Your task to perform on an android device: turn vacation reply on in the gmail app Image 0: 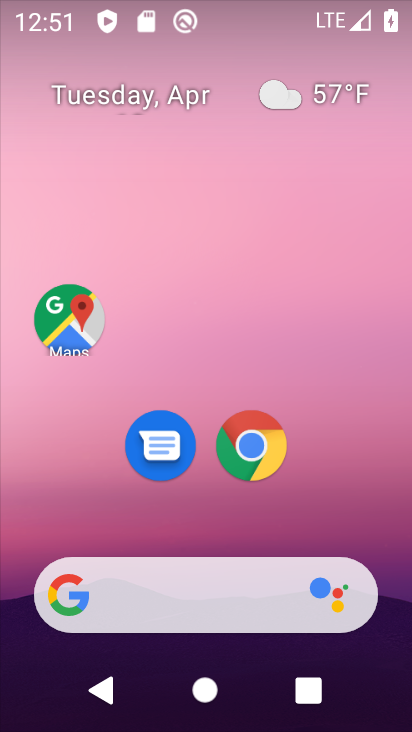
Step 0: drag from (338, 471) to (337, 107)
Your task to perform on an android device: turn vacation reply on in the gmail app Image 1: 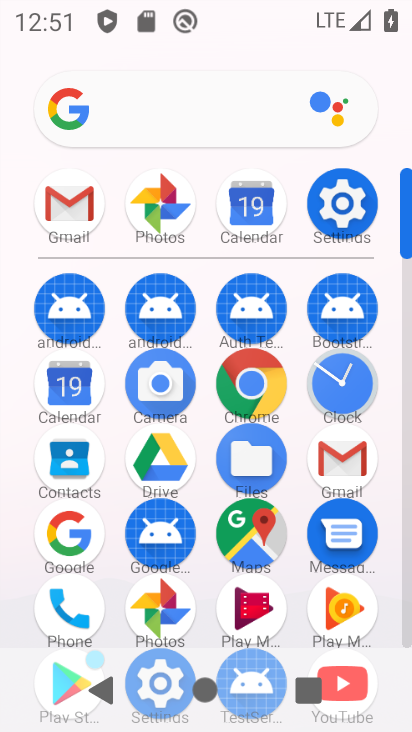
Step 1: click (67, 196)
Your task to perform on an android device: turn vacation reply on in the gmail app Image 2: 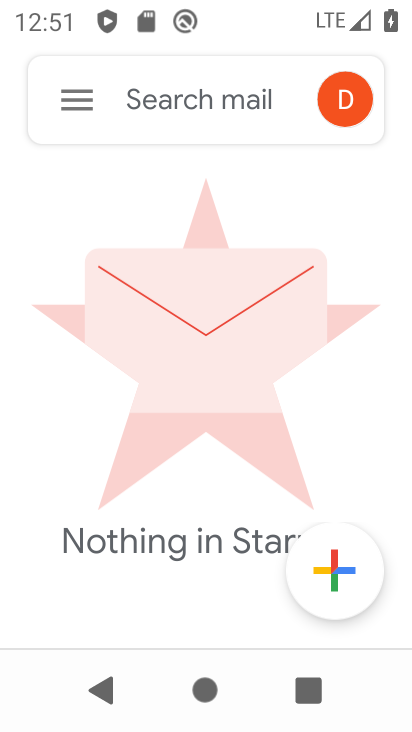
Step 2: click (74, 102)
Your task to perform on an android device: turn vacation reply on in the gmail app Image 3: 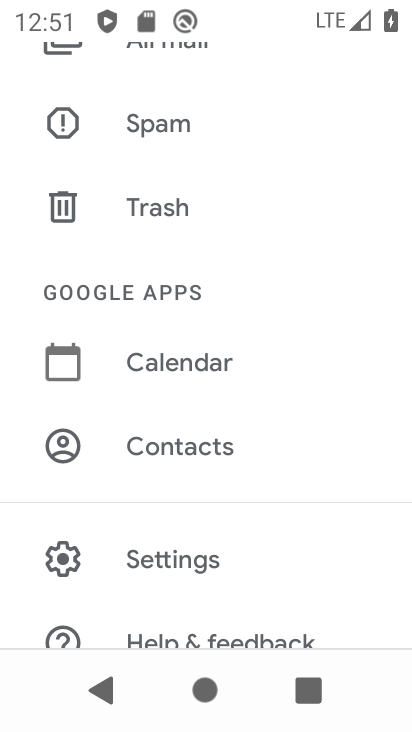
Step 3: click (161, 546)
Your task to perform on an android device: turn vacation reply on in the gmail app Image 4: 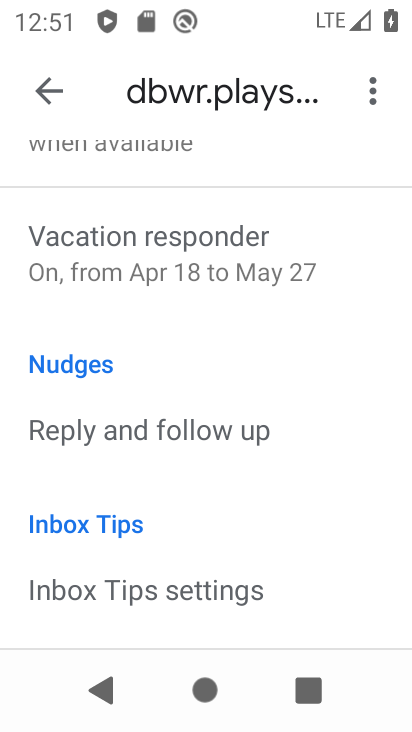
Step 4: drag from (215, 528) to (200, 595)
Your task to perform on an android device: turn vacation reply on in the gmail app Image 5: 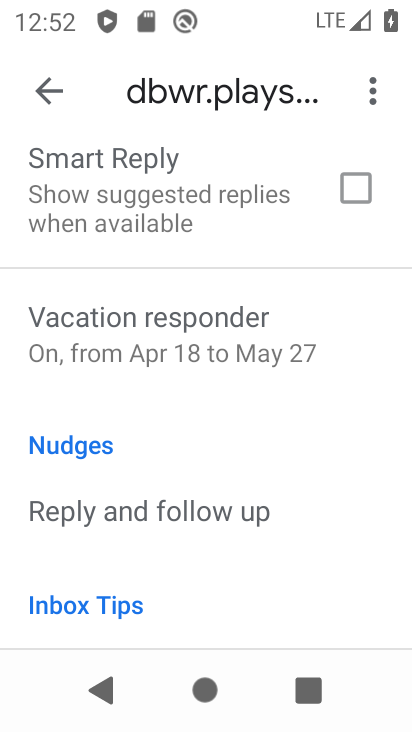
Step 5: click (259, 333)
Your task to perform on an android device: turn vacation reply on in the gmail app Image 6: 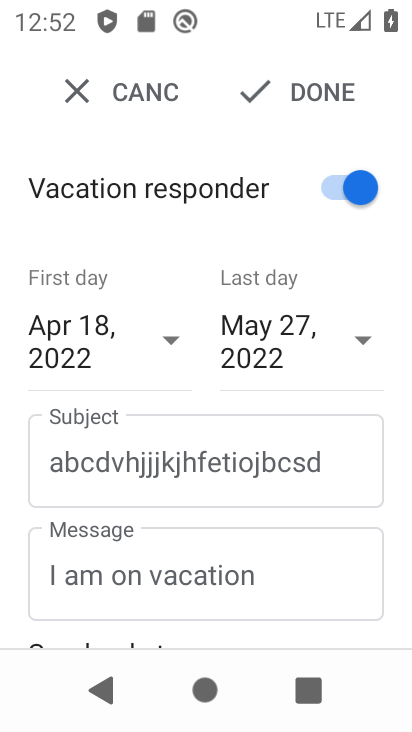
Step 6: task complete